Your task to perform on an android device: uninstall "HBO Max: Stream TV & Movies" Image 0: 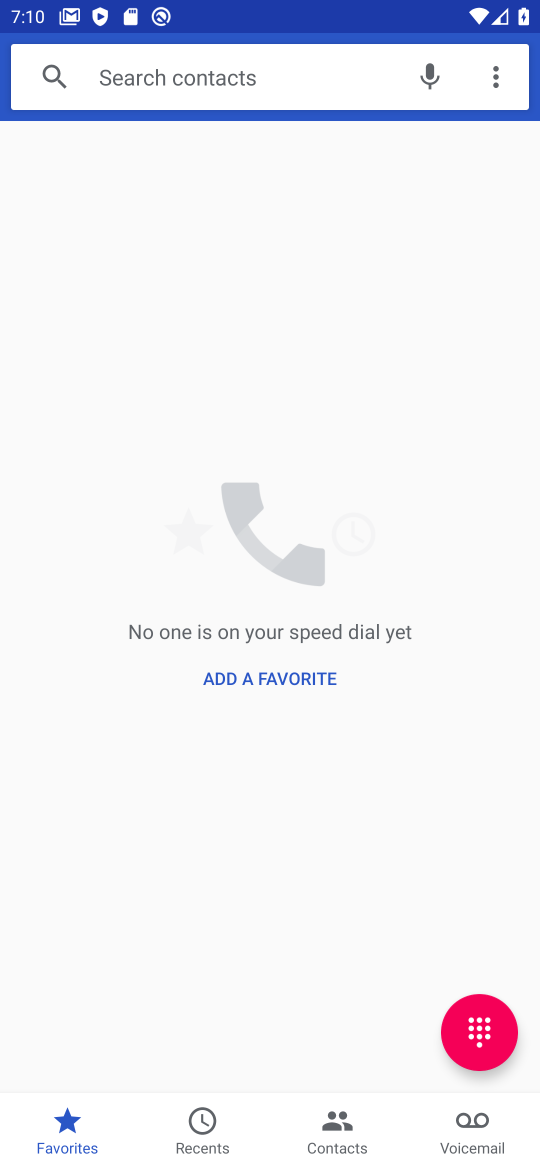
Step 0: press home button
Your task to perform on an android device: uninstall "HBO Max: Stream TV & Movies" Image 1: 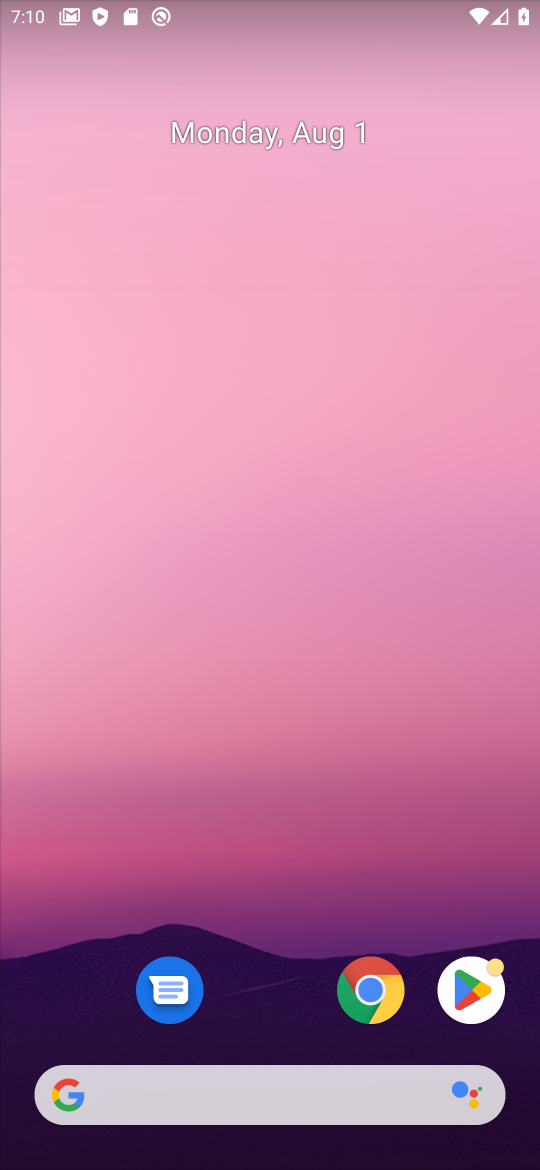
Step 1: click (466, 976)
Your task to perform on an android device: uninstall "HBO Max: Stream TV & Movies" Image 2: 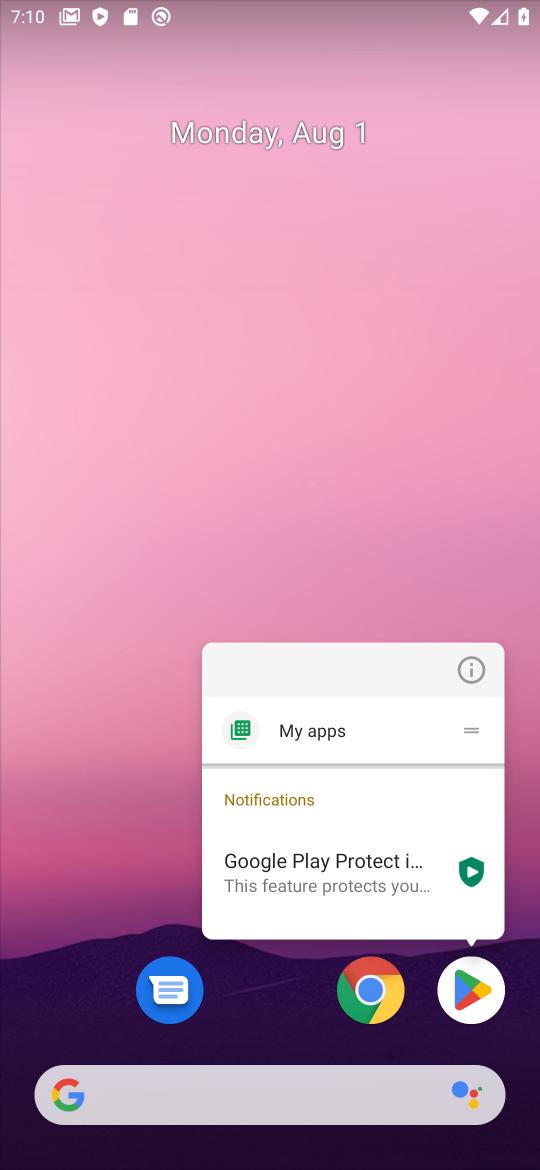
Step 2: click (454, 1001)
Your task to perform on an android device: uninstall "HBO Max: Stream TV & Movies" Image 3: 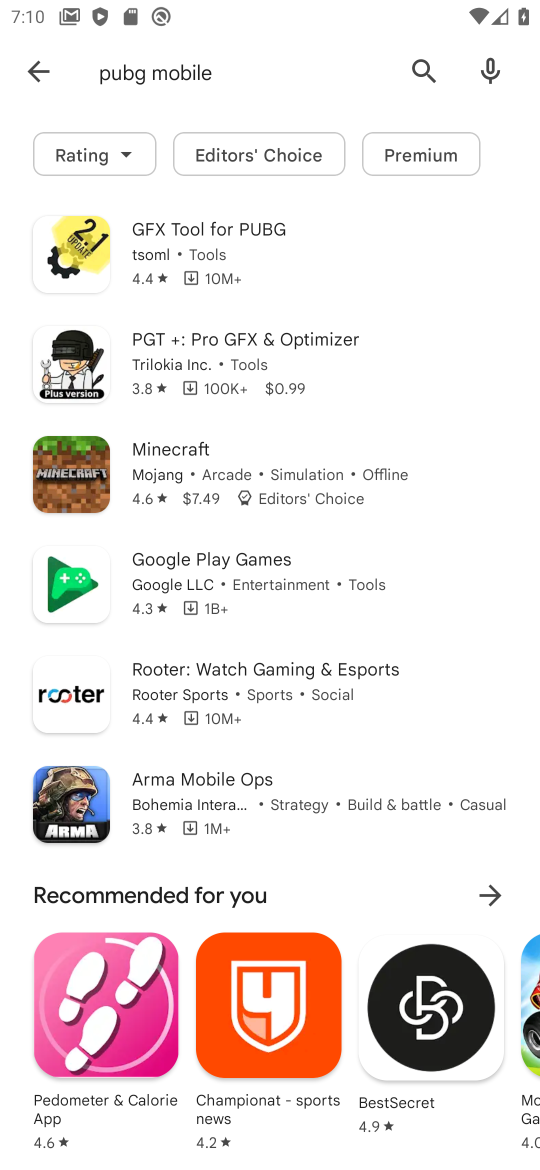
Step 3: click (427, 69)
Your task to perform on an android device: uninstall "HBO Max: Stream TV & Movies" Image 4: 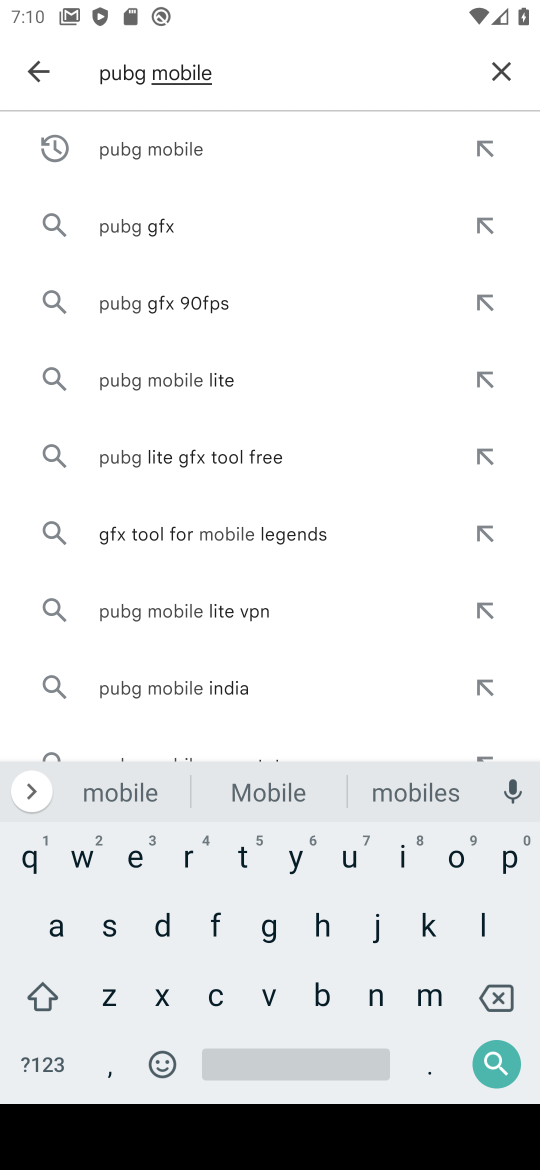
Step 4: click (500, 72)
Your task to perform on an android device: uninstall "HBO Max: Stream TV & Movies" Image 5: 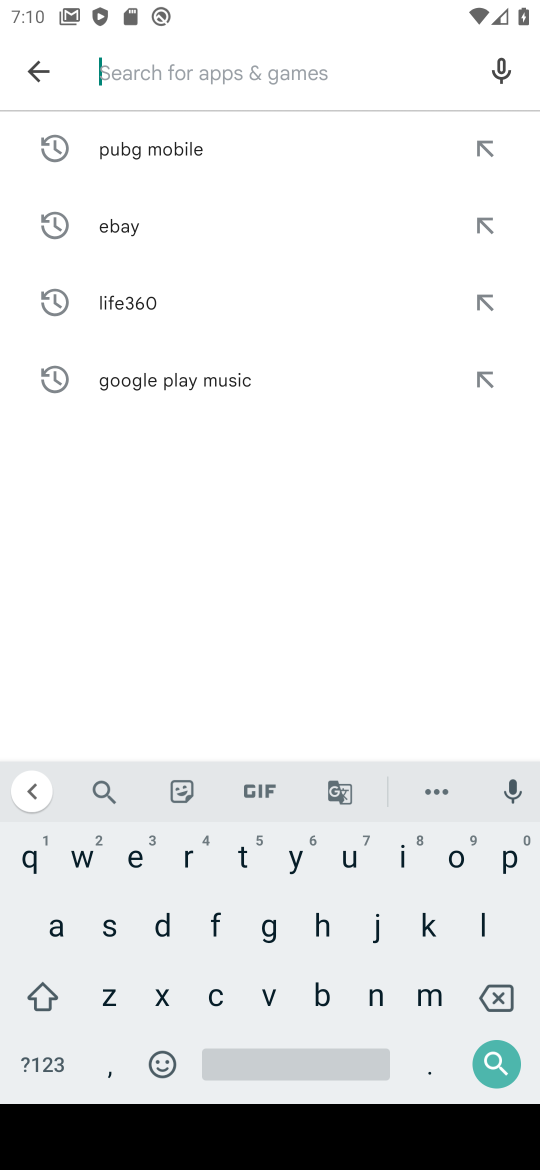
Step 5: click (320, 993)
Your task to perform on an android device: uninstall "HBO Max: Stream TV & Movies" Image 6: 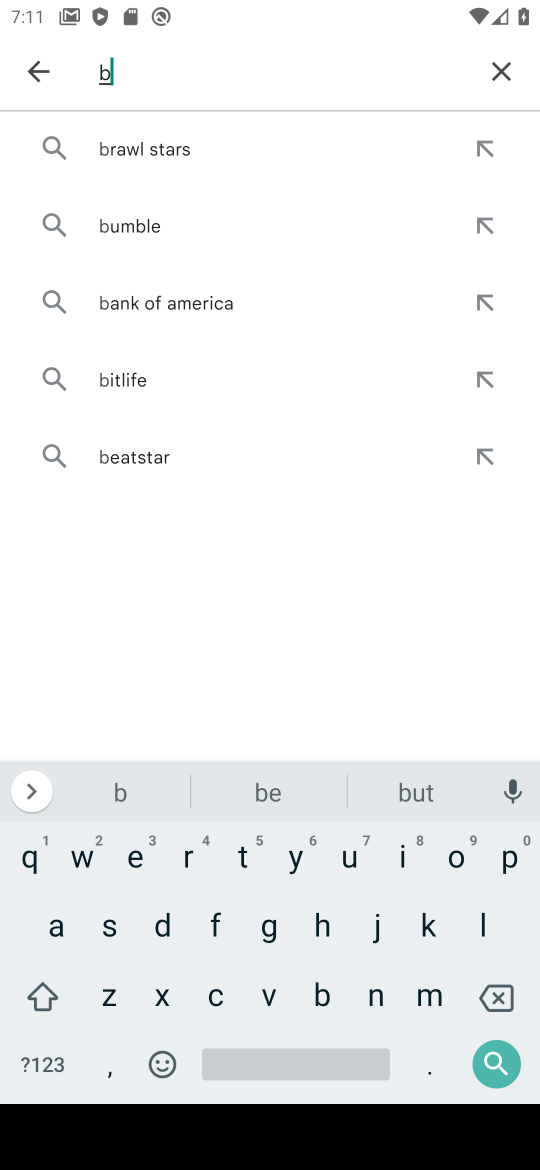
Step 6: click (491, 999)
Your task to perform on an android device: uninstall "HBO Max: Stream TV & Movies" Image 7: 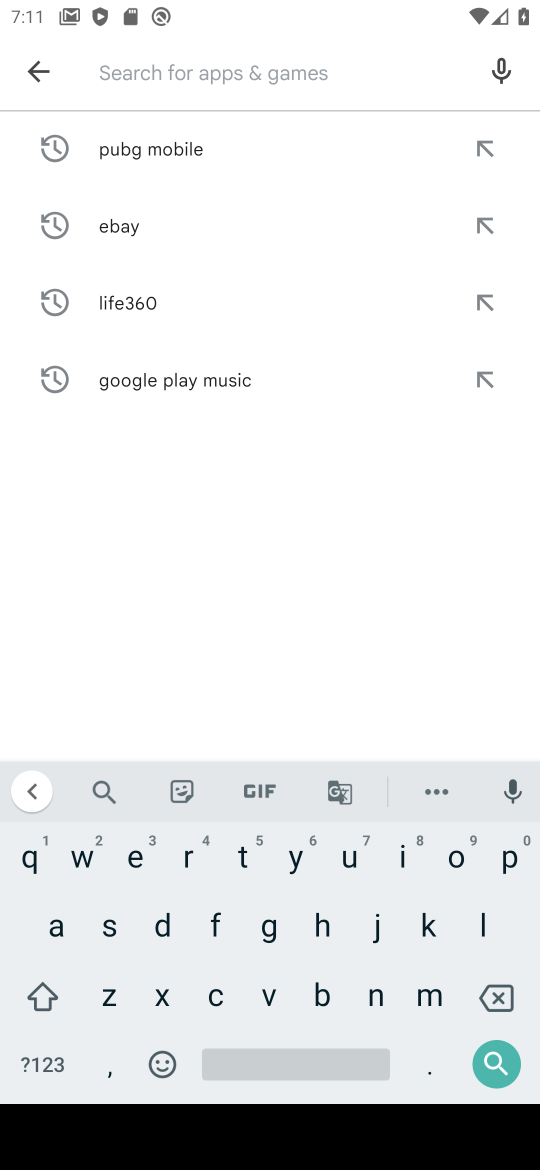
Step 7: click (323, 916)
Your task to perform on an android device: uninstall "HBO Max: Stream TV & Movies" Image 8: 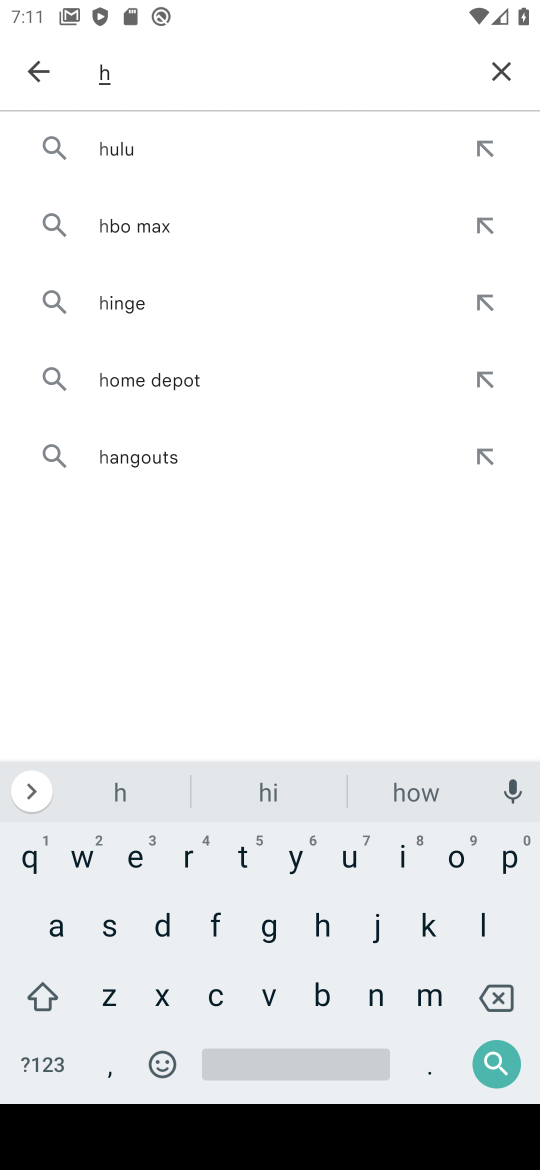
Step 8: click (318, 1003)
Your task to perform on an android device: uninstall "HBO Max: Stream TV & Movies" Image 9: 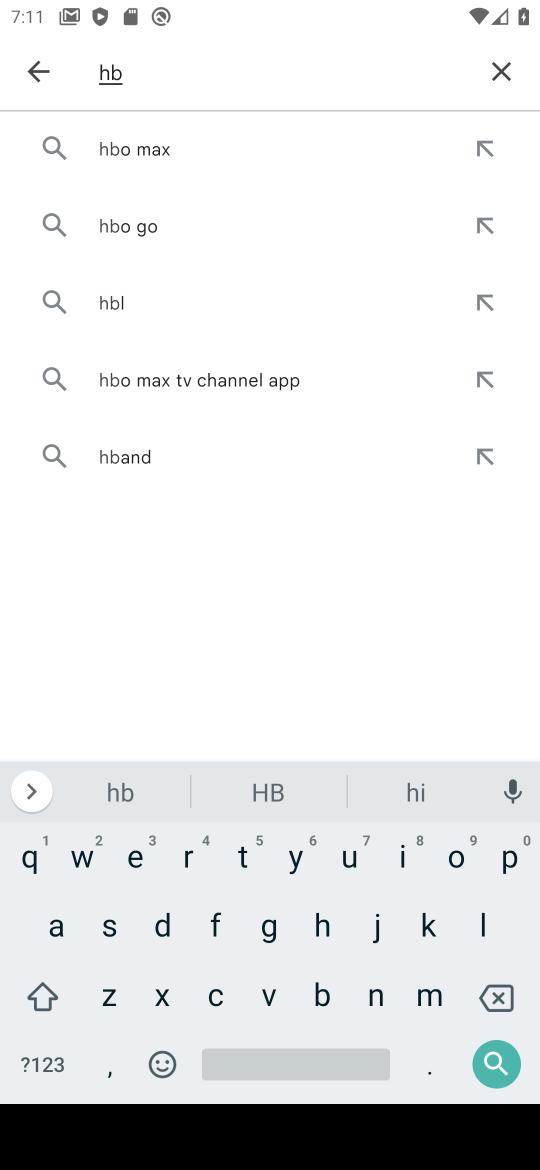
Step 9: click (460, 855)
Your task to perform on an android device: uninstall "HBO Max: Stream TV & Movies" Image 10: 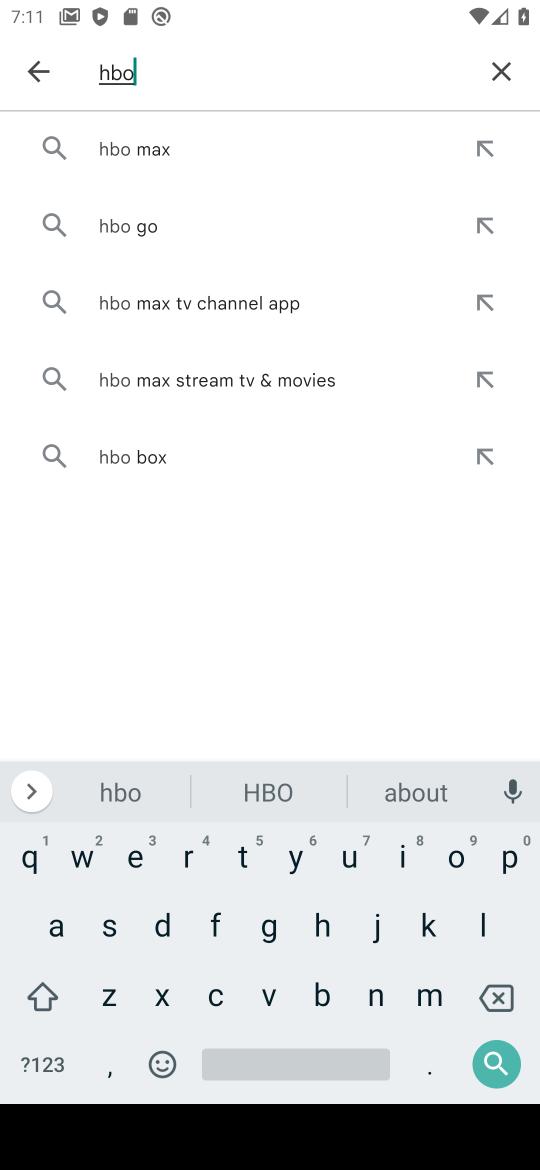
Step 10: click (147, 153)
Your task to perform on an android device: uninstall "HBO Max: Stream TV & Movies" Image 11: 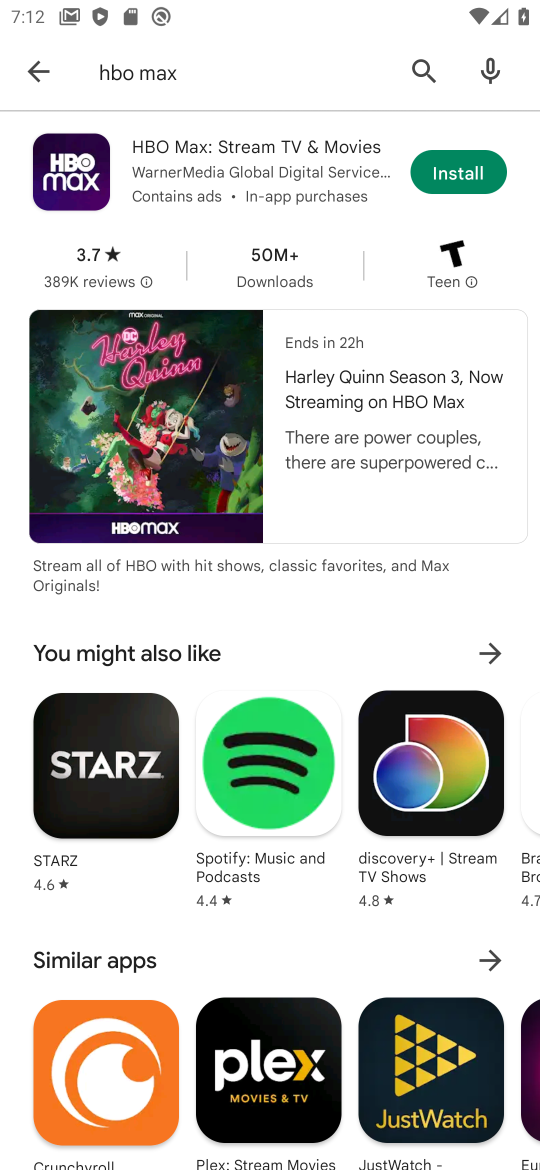
Step 11: task complete